Your task to perform on an android device: turn on sleep mode Image 0: 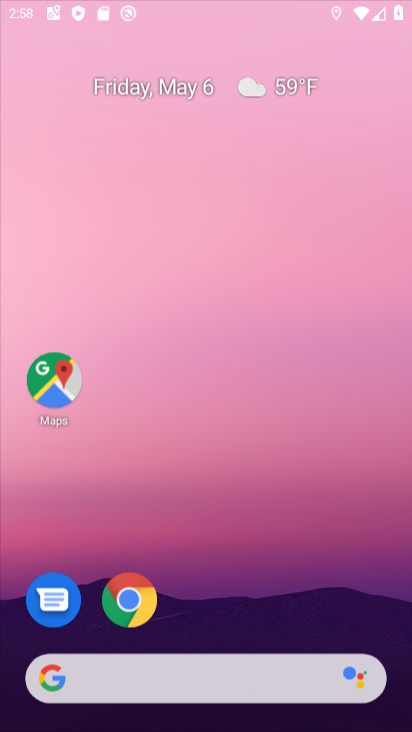
Step 0: press home button
Your task to perform on an android device: turn on sleep mode Image 1: 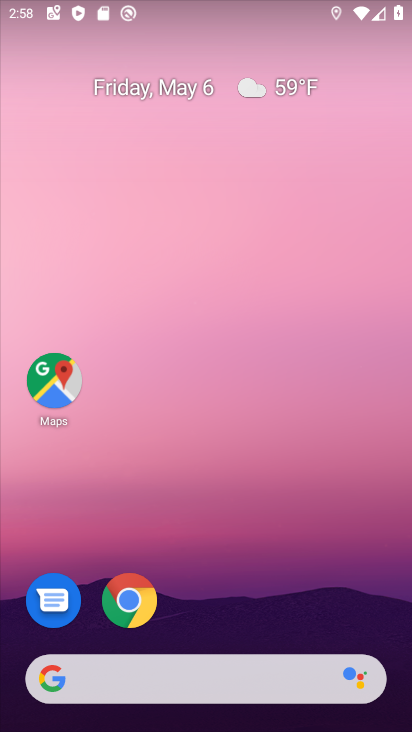
Step 1: drag from (227, 590) to (254, 32)
Your task to perform on an android device: turn on sleep mode Image 2: 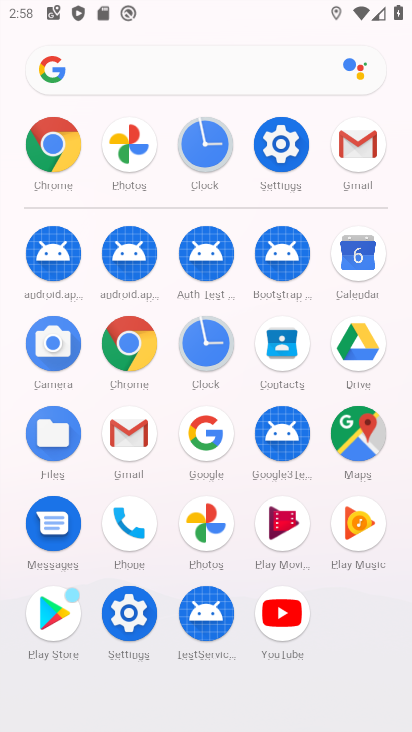
Step 2: click (280, 145)
Your task to perform on an android device: turn on sleep mode Image 3: 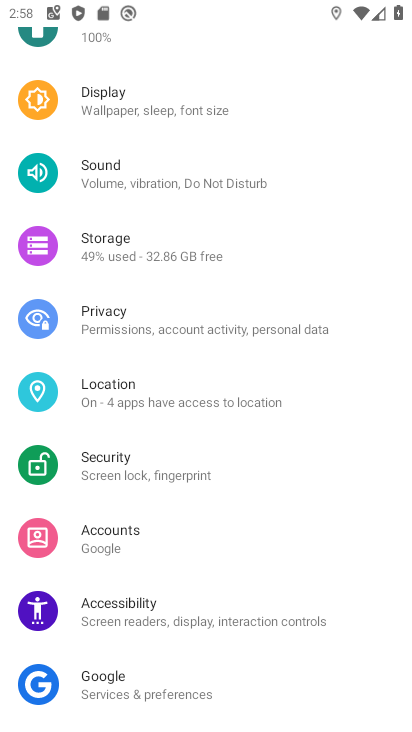
Step 3: click (150, 107)
Your task to perform on an android device: turn on sleep mode Image 4: 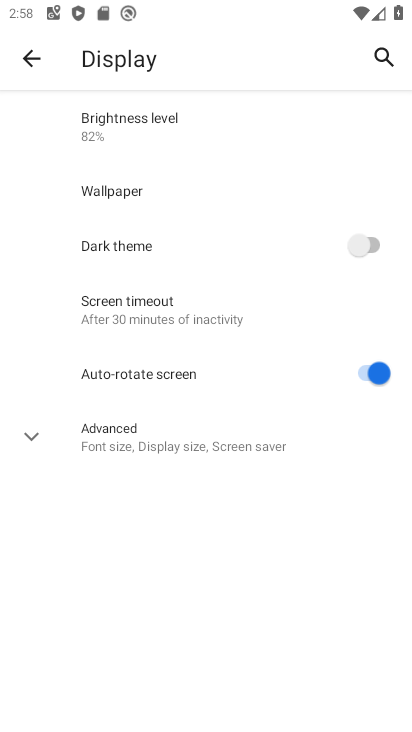
Step 4: click (126, 308)
Your task to perform on an android device: turn on sleep mode Image 5: 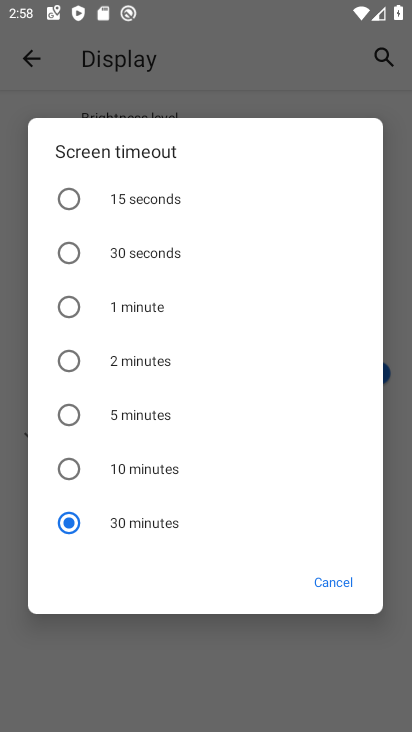
Step 5: task complete